Your task to perform on an android device: Open Maps and search for coffee Image 0: 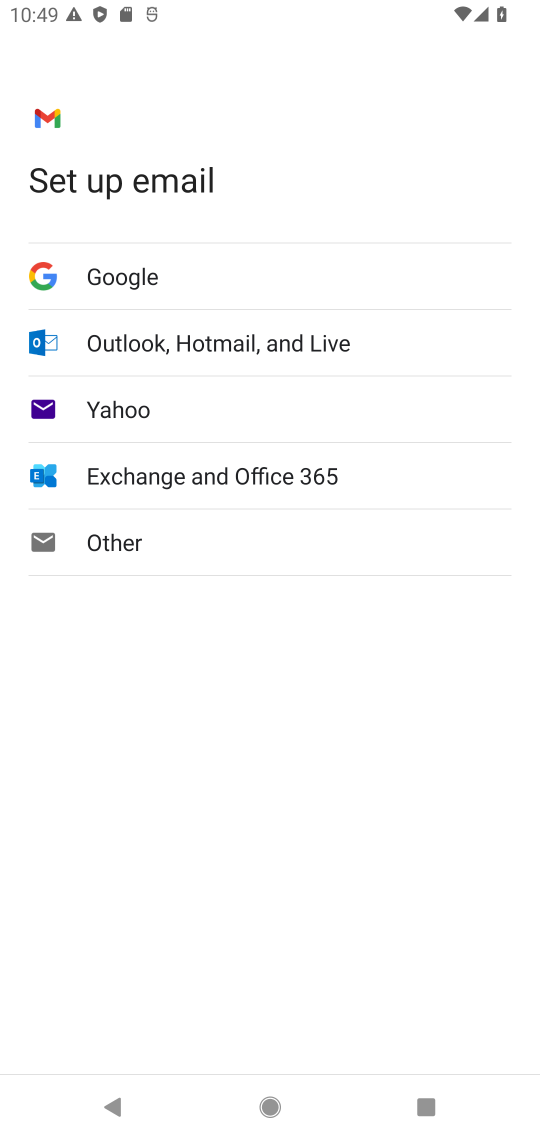
Step 0: press home button
Your task to perform on an android device: Open Maps and search for coffee Image 1: 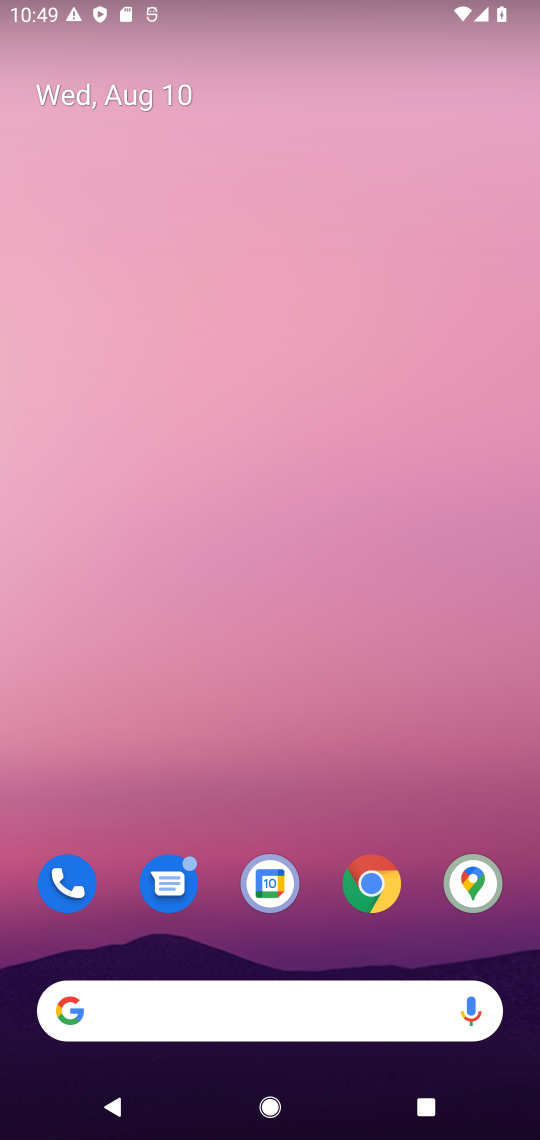
Step 1: drag from (293, 920) to (343, 176)
Your task to perform on an android device: Open Maps and search for coffee Image 2: 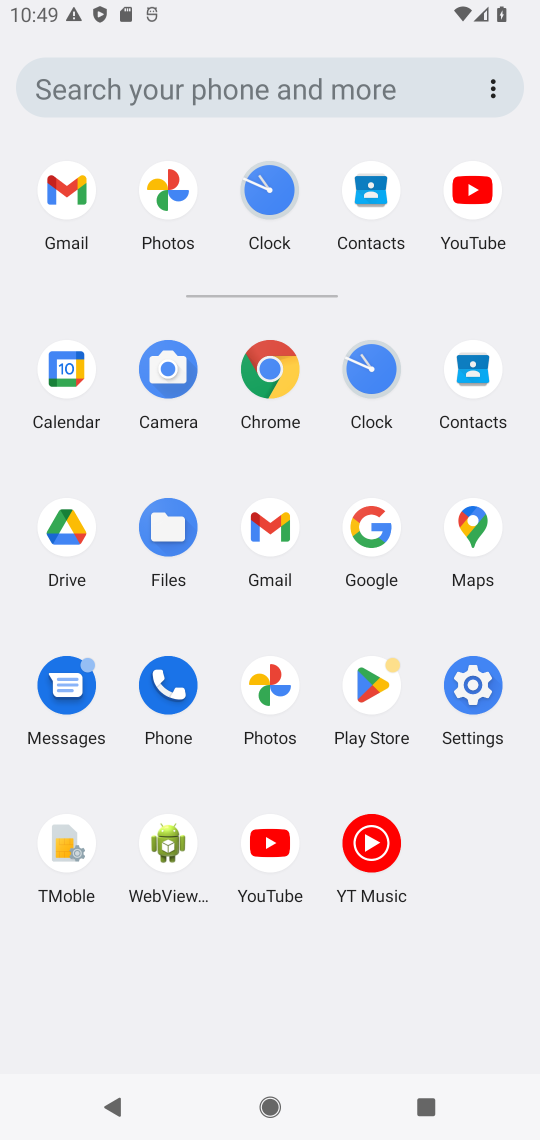
Step 2: click (480, 526)
Your task to perform on an android device: Open Maps and search for coffee Image 3: 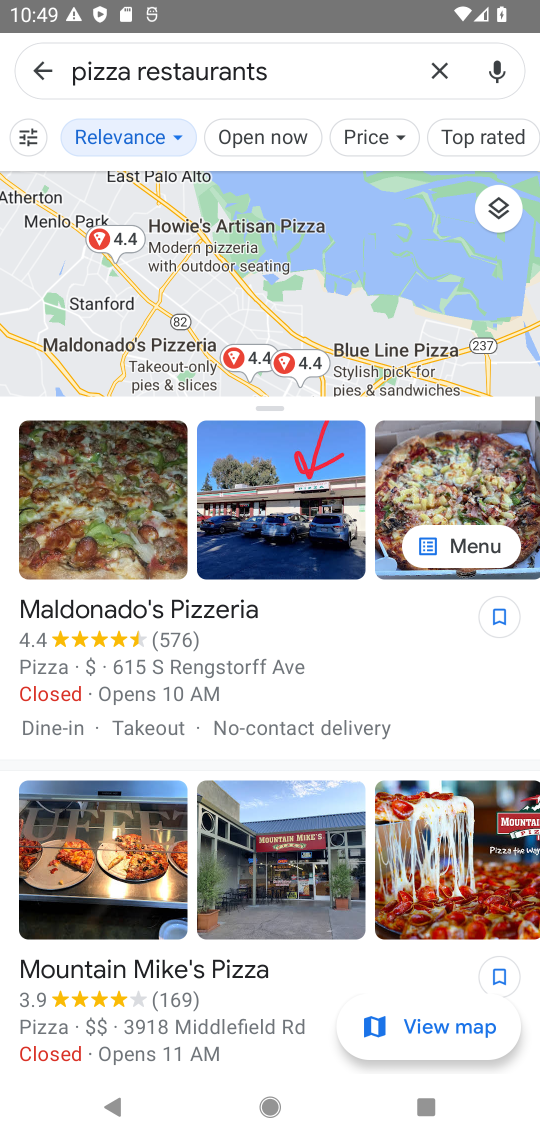
Step 3: click (437, 63)
Your task to perform on an android device: Open Maps and search for coffee Image 4: 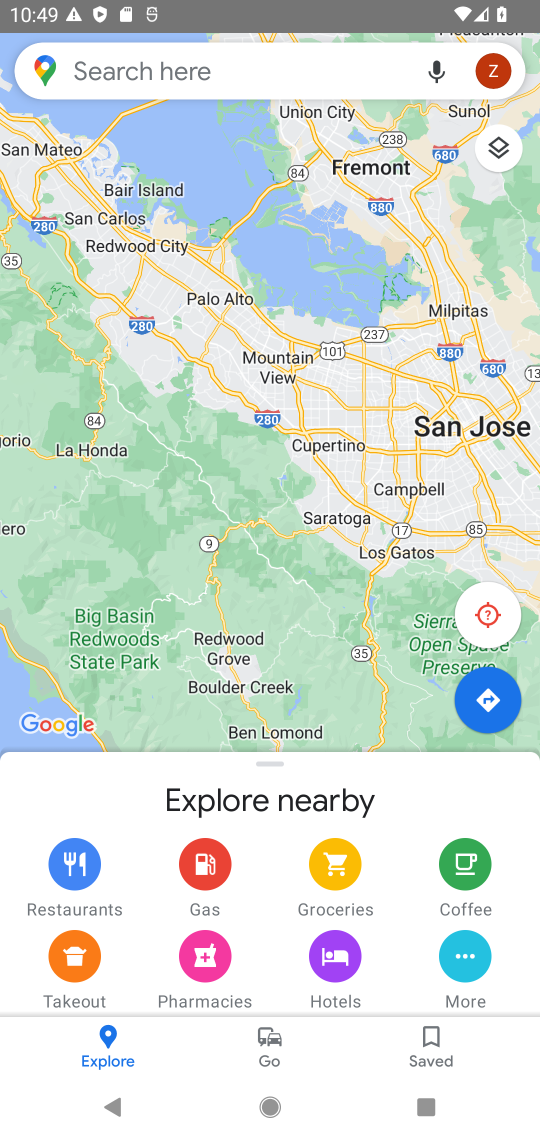
Step 4: click (225, 81)
Your task to perform on an android device: Open Maps and search for coffee Image 5: 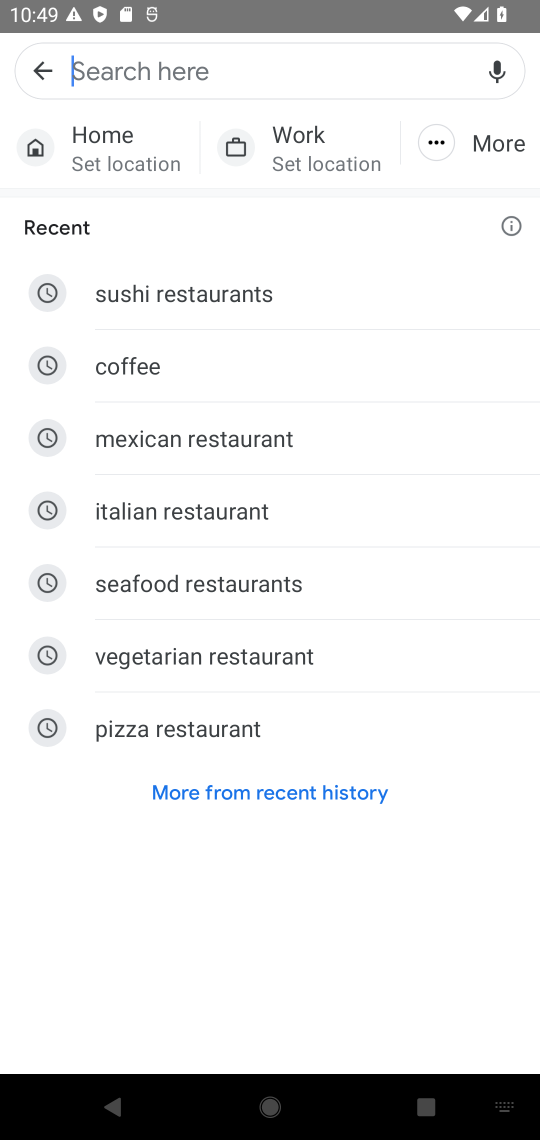
Step 5: type "coffee"
Your task to perform on an android device: Open Maps and search for coffee Image 6: 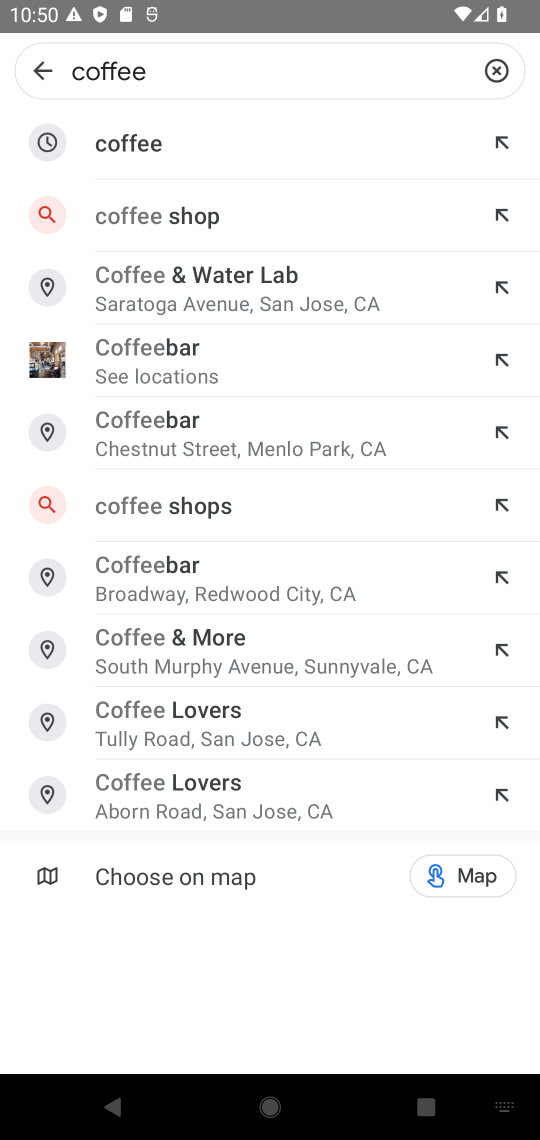
Step 6: click (102, 140)
Your task to perform on an android device: Open Maps and search for coffee Image 7: 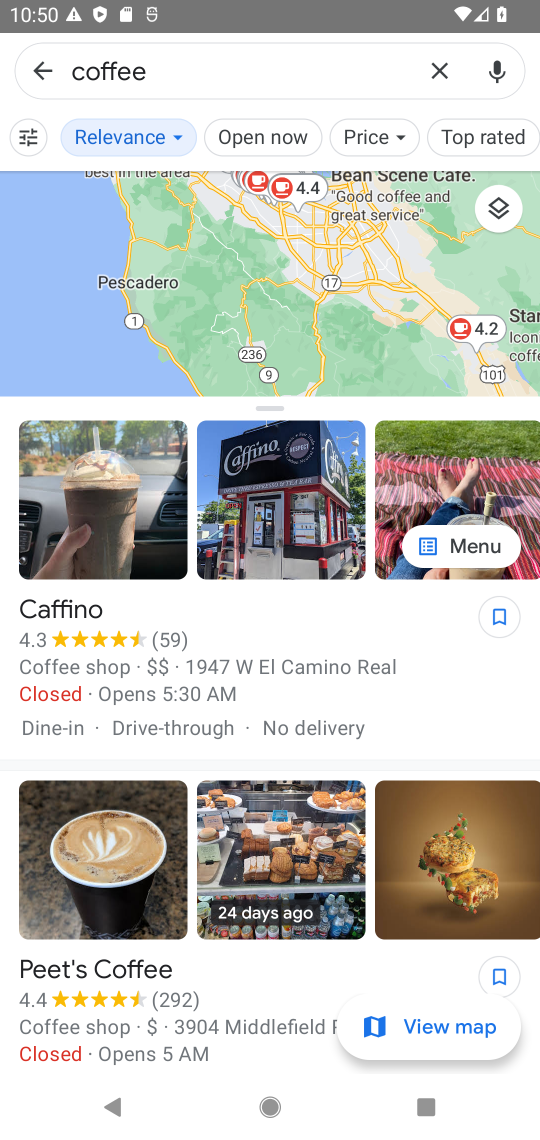
Step 7: task complete